Your task to perform on an android device: toggle translation in the chrome app Image 0: 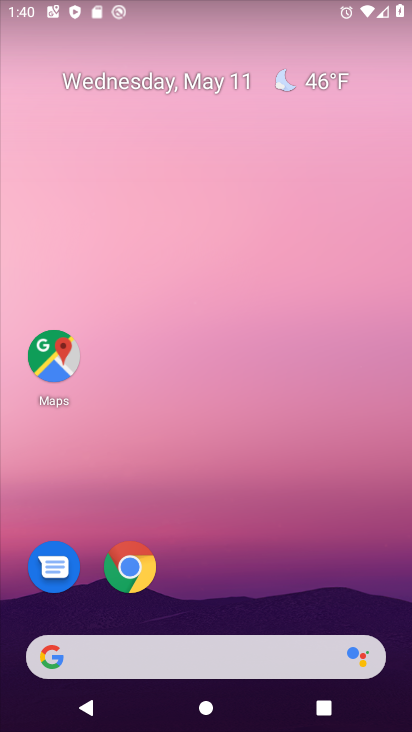
Step 0: click (134, 588)
Your task to perform on an android device: toggle translation in the chrome app Image 1: 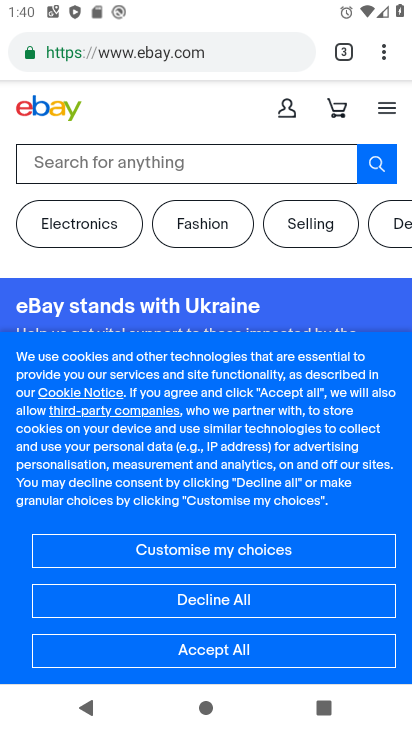
Step 1: click (380, 58)
Your task to perform on an android device: toggle translation in the chrome app Image 2: 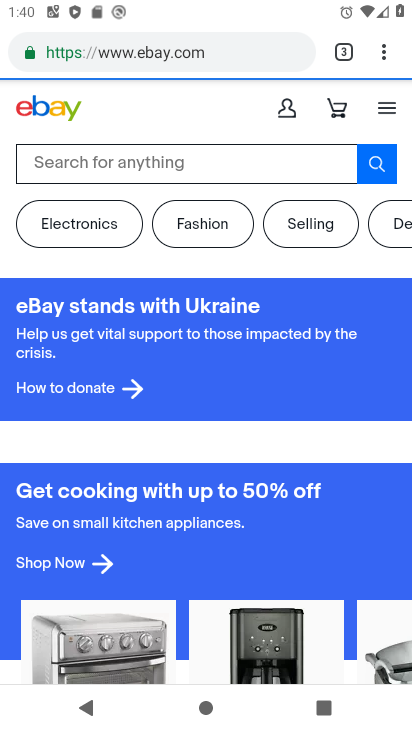
Step 2: click (383, 47)
Your task to perform on an android device: toggle translation in the chrome app Image 3: 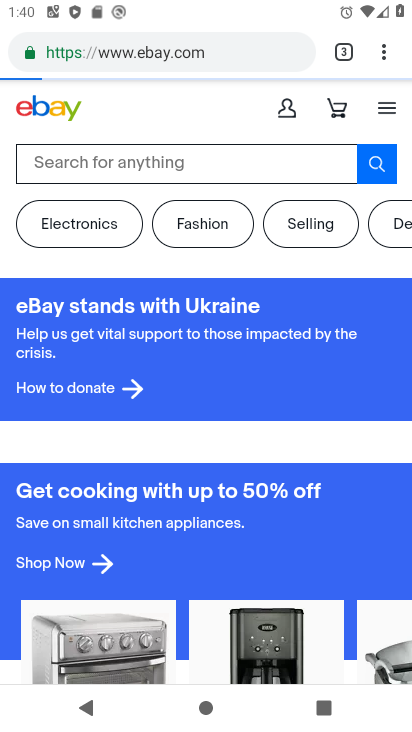
Step 3: drag from (382, 47) to (223, 617)
Your task to perform on an android device: toggle translation in the chrome app Image 4: 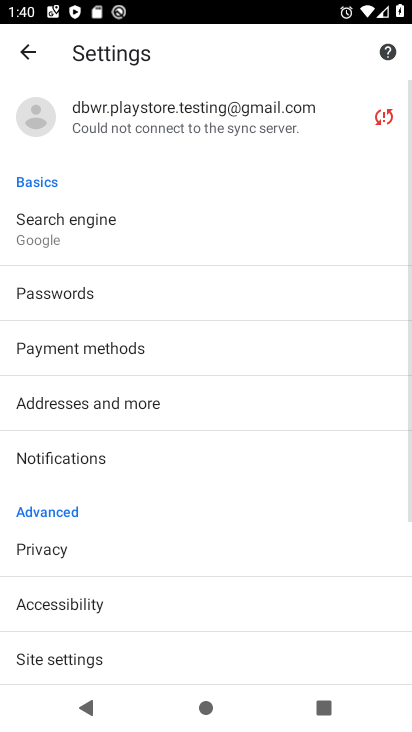
Step 4: drag from (161, 604) to (132, 184)
Your task to perform on an android device: toggle translation in the chrome app Image 5: 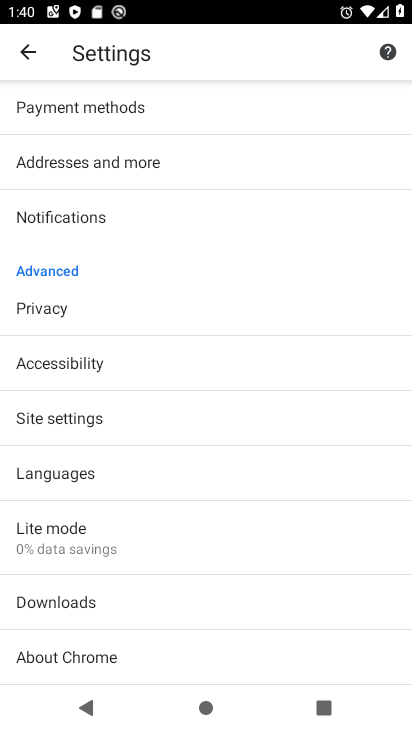
Step 5: click (69, 477)
Your task to perform on an android device: toggle translation in the chrome app Image 6: 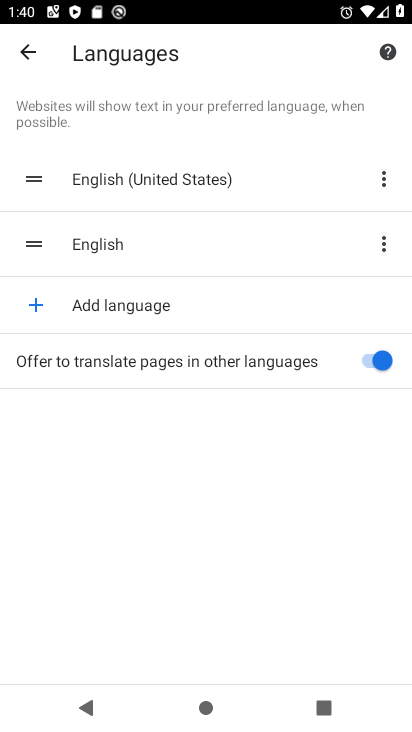
Step 6: click (378, 349)
Your task to perform on an android device: toggle translation in the chrome app Image 7: 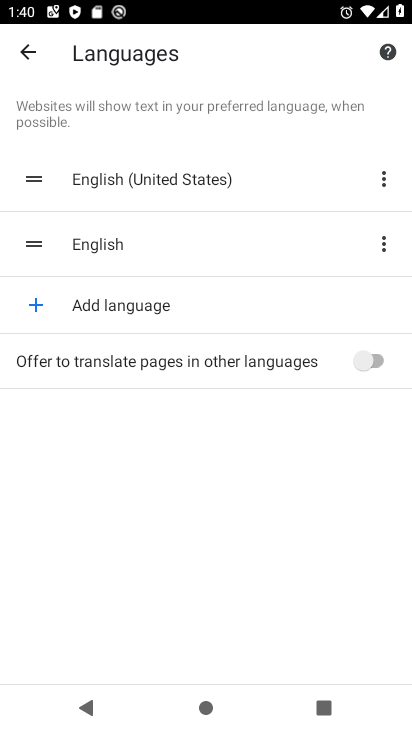
Step 7: task complete